Your task to perform on an android device: Go to calendar. Show me events next week Image 0: 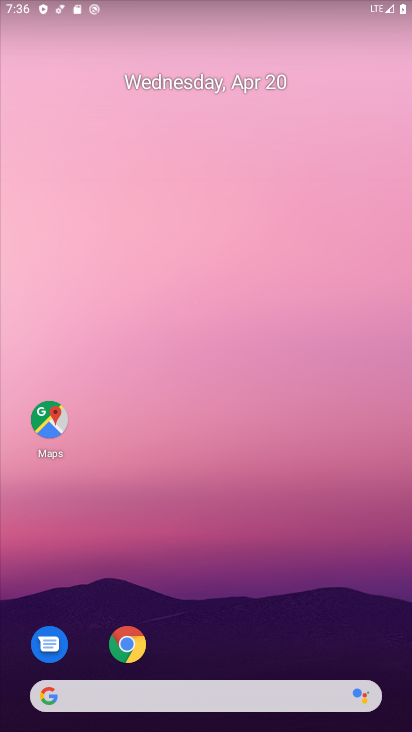
Step 0: drag from (358, 639) to (25, 304)
Your task to perform on an android device: Go to calendar. Show me events next week Image 1: 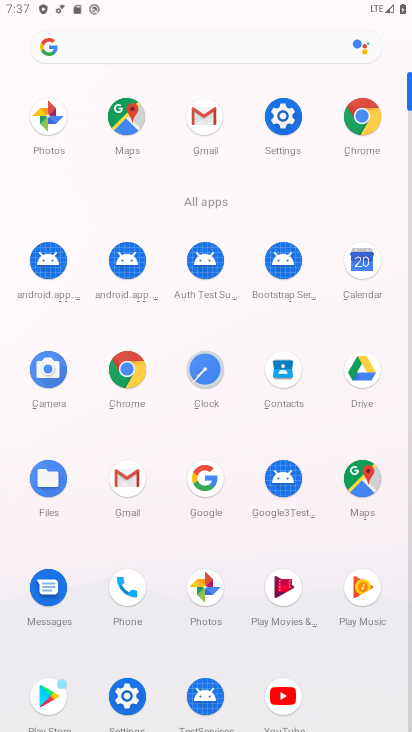
Step 1: click (368, 258)
Your task to perform on an android device: Go to calendar. Show me events next week Image 2: 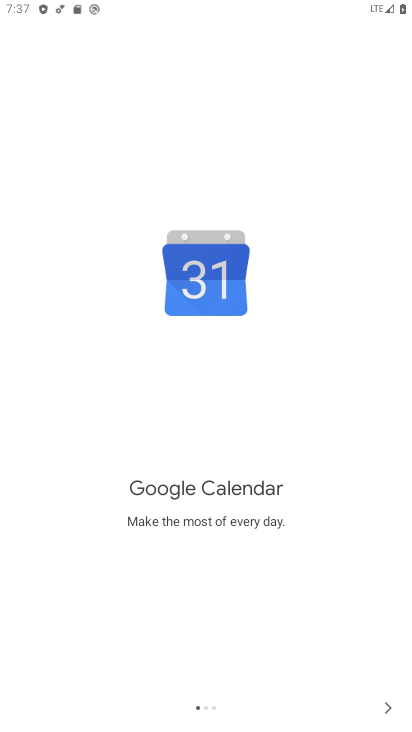
Step 2: click (388, 716)
Your task to perform on an android device: Go to calendar. Show me events next week Image 3: 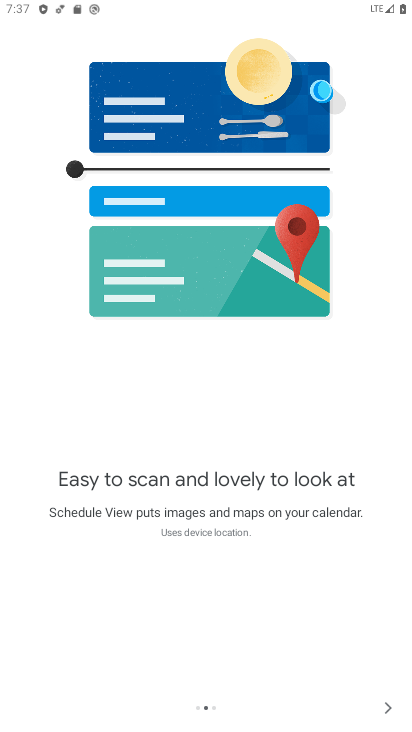
Step 3: click (388, 711)
Your task to perform on an android device: Go to calendar. Show me events next week Image 4: 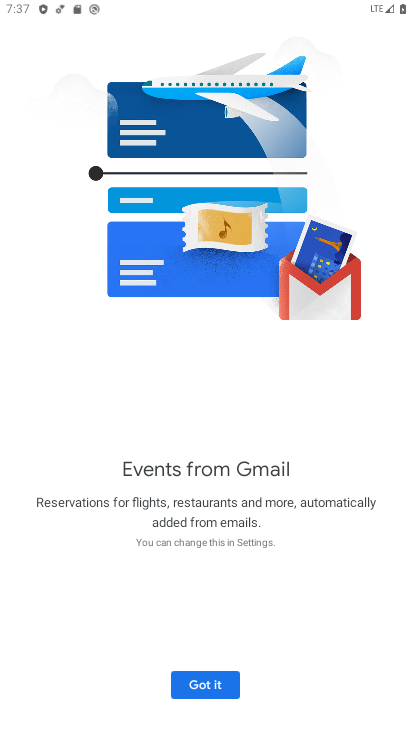
Step 4: click (218, 692)
Your task to perform on an android device: Go to calendar. Show me events next week Image 5: 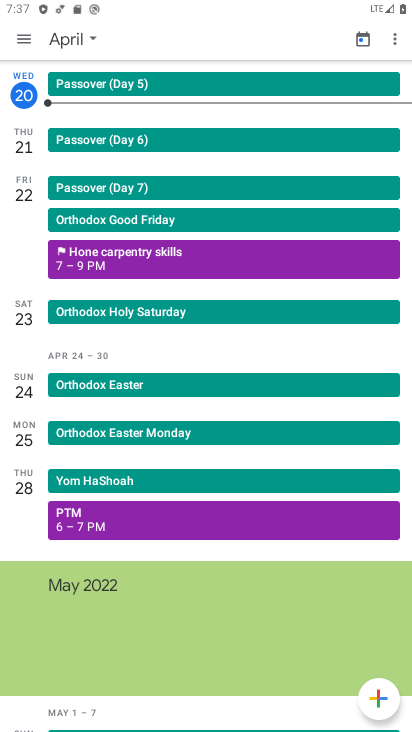
Step 5: click (94, 40)
Your task to perform on an android device: Go to calendar. Show me events next week Image 6: 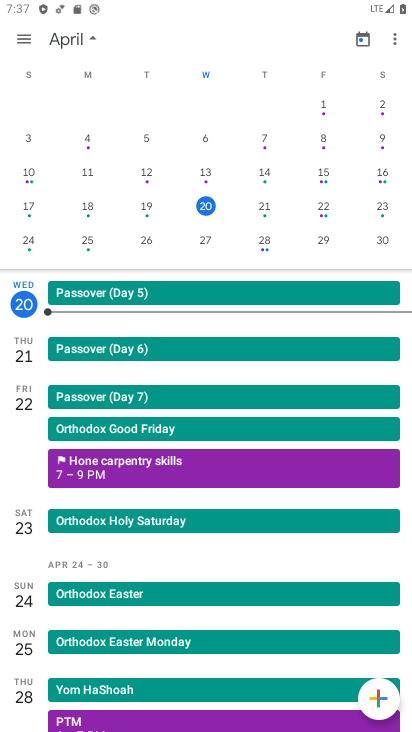
Step 6: click (262, 240)
Your task to perform on an android device: Go to calendar. Show me events next week Image 7: 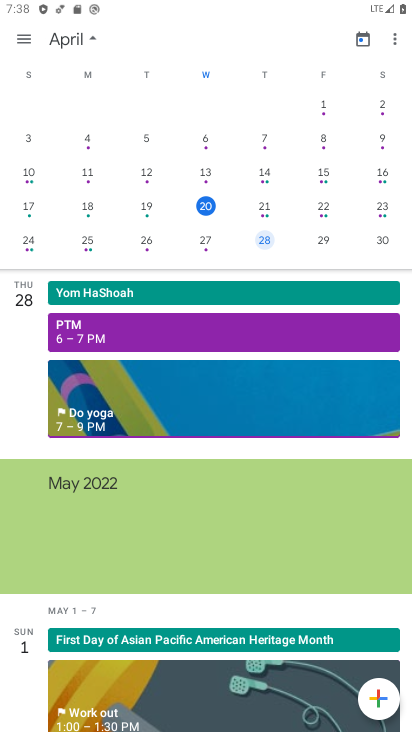
Step 7: click (173, 326)
Your task to perform on an android device: Go to calendar. Show me events next week Image 8: 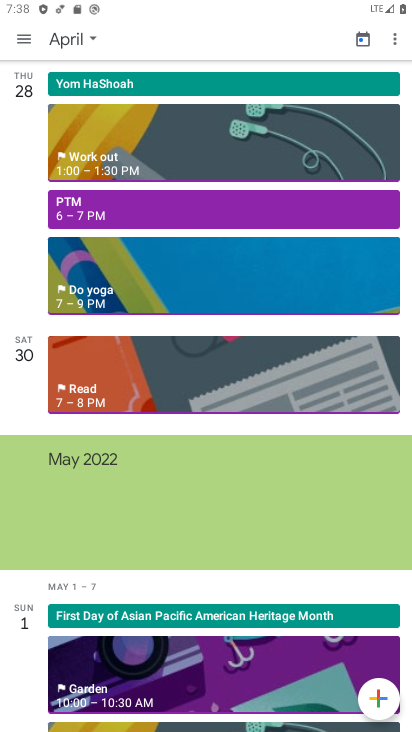
Step 8: click (148, 218)
Your task to perform on an android device: Go to calendar. Show me events next week Image 9: 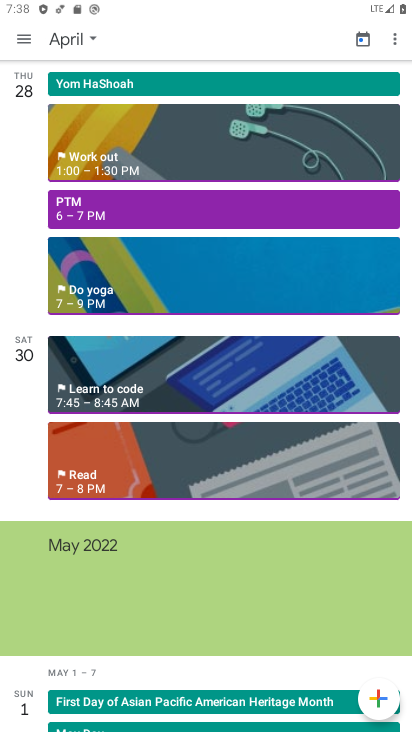
Step 9: click (168, 213)
Your task to perform on an android device: Go to calendar. Show me events next week Image 10: 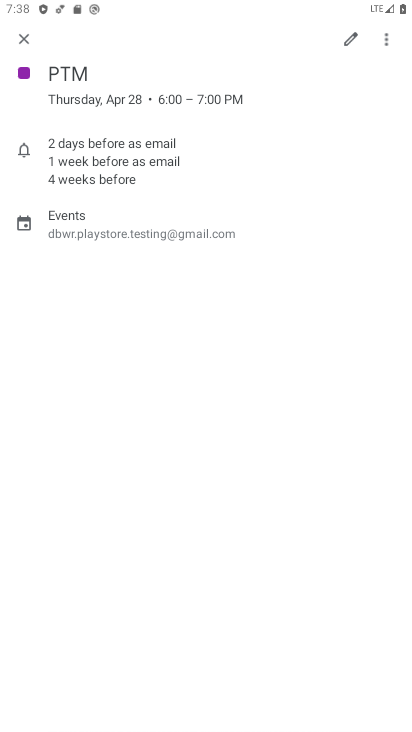
Step 10: task complete